Your task to perform on an android device: Open Chrome and go to settings Image 0: 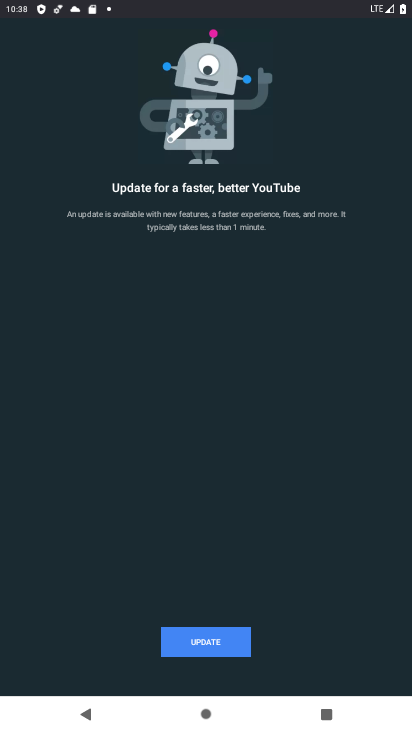
Step 0: press home button
Your task to perform on an android device: Open Chrome and go to settings Image 1: 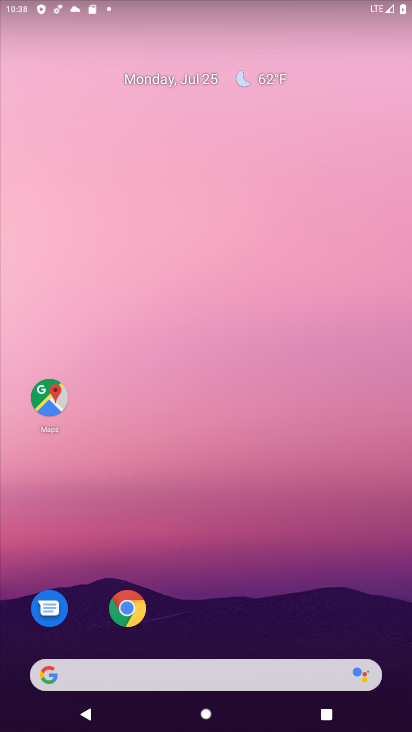
Step 1: click (136, 624)
Your task to perform on an android device: Open Chrome and go to settings Image 2: 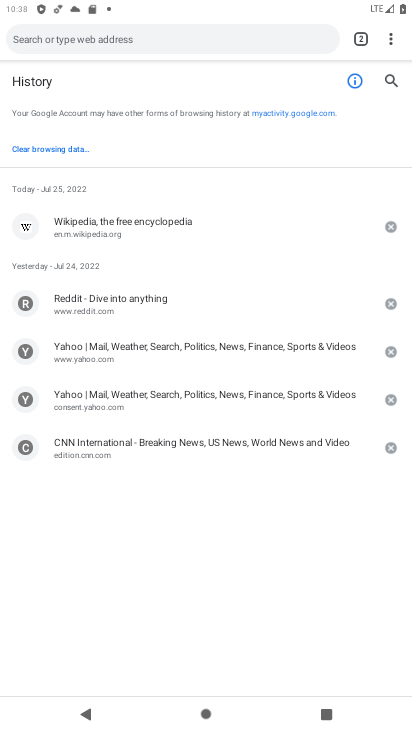
Step 2: click (389, 36)
Your task to perform on an android device: Open Chrome and go to settings Image 3: 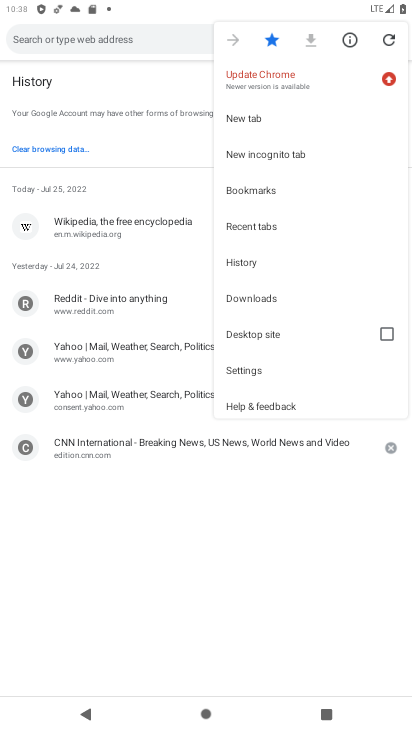
Step 3: click (255, 365)
Your task to perform on an android device: Open Chrome and go to settings Image 4: 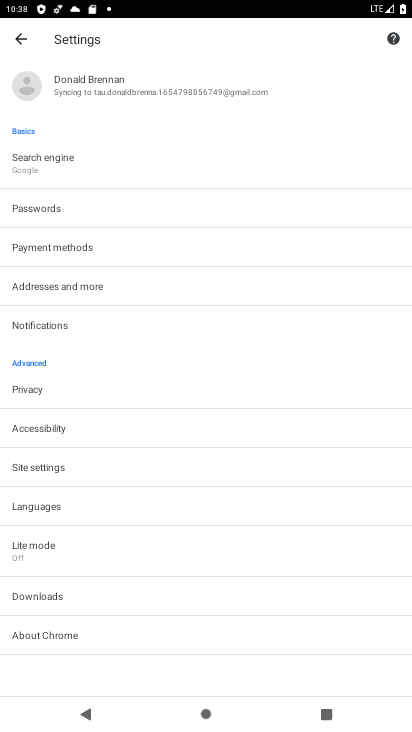
Step 4: task complete